Your task to perform on an android device: turn off sleep mode Image 0: 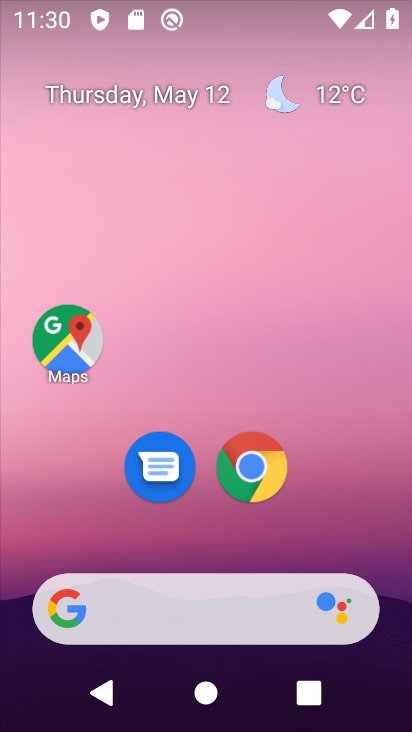
Step 0: drag from (315, 371) to (253, 21)
Your task to perform on an android device: turn off sleep mode Image 1: 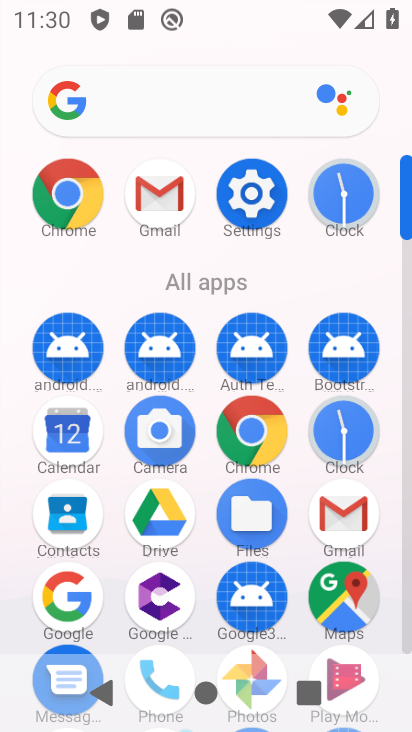
Step 1: drag from (29, 321) to (39, 228)
Your task to perform on an android device: turn off sleep mode Image 2: 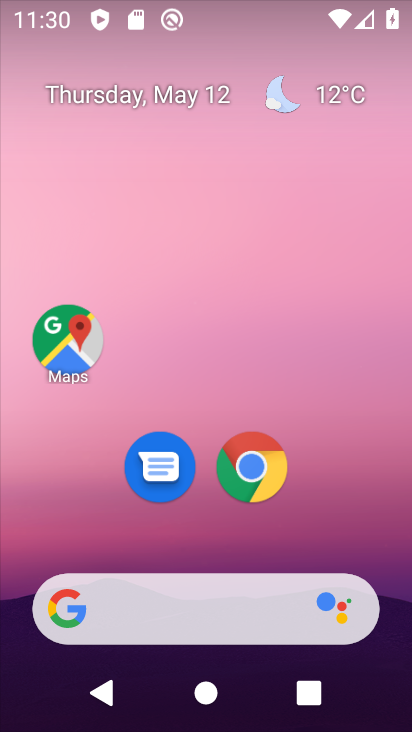
Step 2: drag from (17, 648) to (37, 74)
Your task to perform on an android device: turn off sleep mode Image 3: 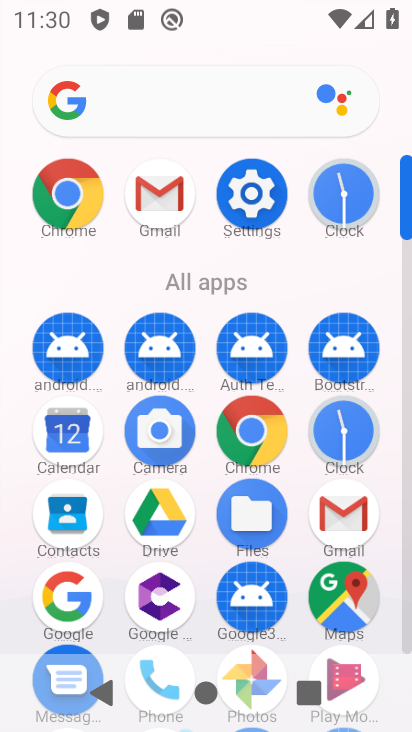
Step 3: click (248, 192)
Your task to perform on an android device: turn off sleep mode Image 4: 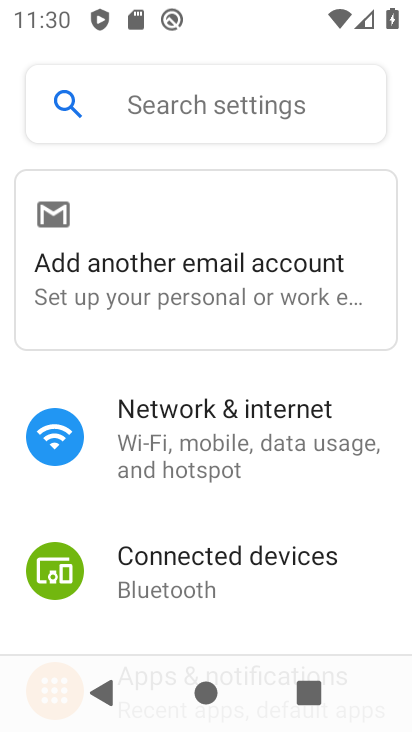
Step 4: drag from (274, 609) to (260, 124)
Your task to perform on an android device: turn off sleep mode Image 5: 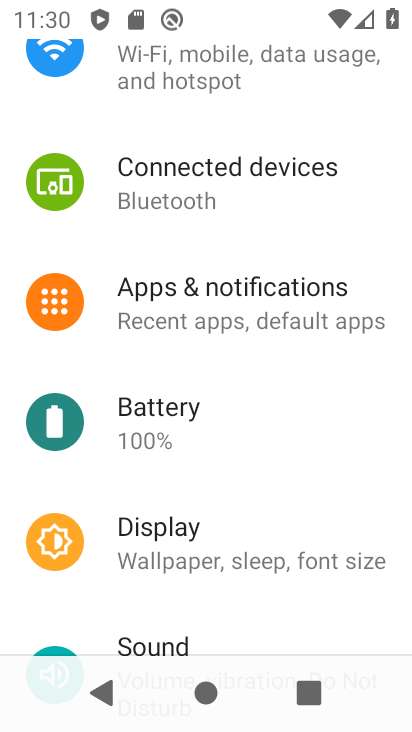
Step 5: drag from (335, 144) to (334, 405)
Your task to perform on an android device: turn off sleep mode Image 6: 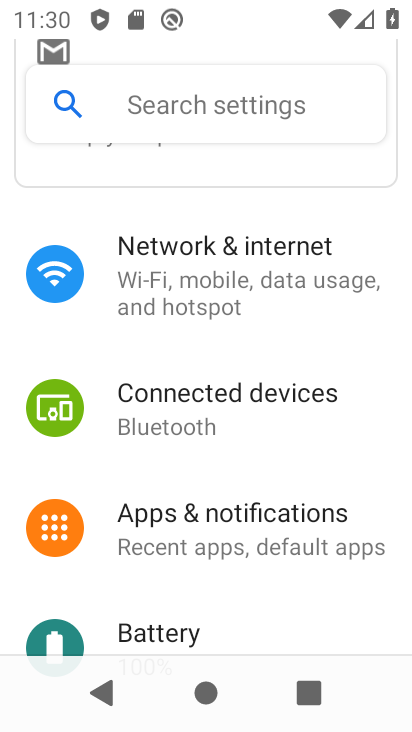
Step 6: drag from (284, 517) to (270, 185)
Your task to perform on an android device: turn off sleep mode Image 7: 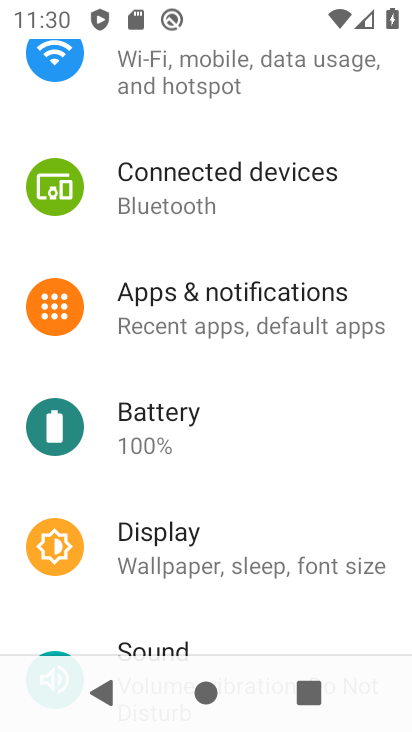
Step 7: drag from (269, 541) to (266, 336)
Your task to perform on an android device: turn off sleep mode Image 8: 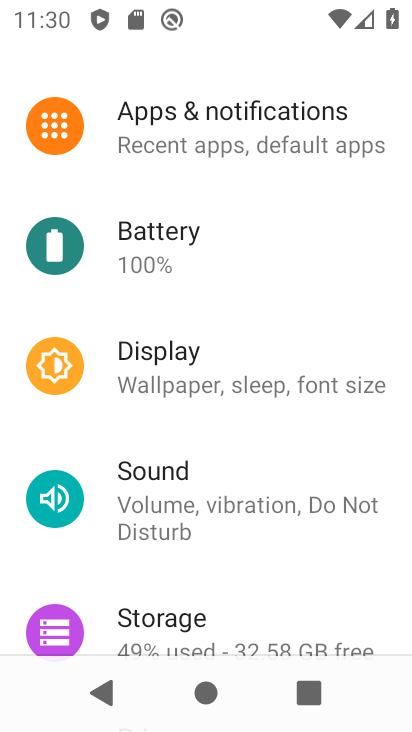
Step 8: click (205, 375)
Your task to perform on an android device: turn off sleep mode Image 9: 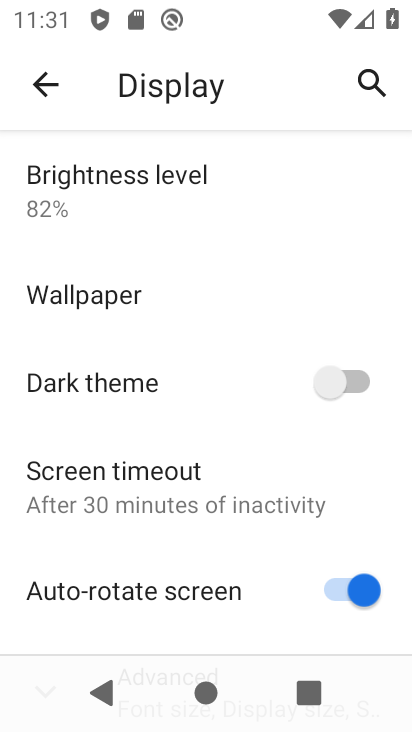
Step 9: drag from (167, 404) to (181, 214)
Your task to perform on an android device: turn off sleep mode Image 10: 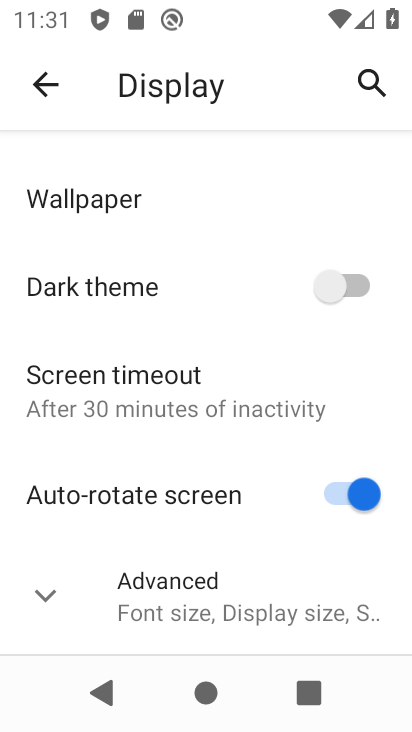
Step 10: click (43, 596)
Your task to perform on an android device: turn off sleep mode Image 11: 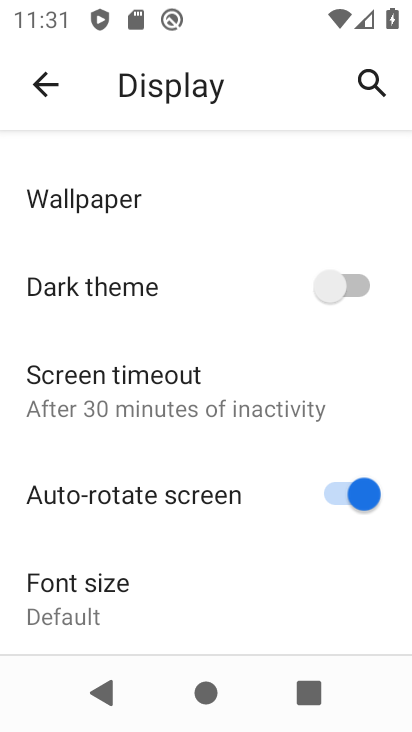
Step 11: task complete